Your task to perform on an android device: check the backup settings in the google photos Image 0: 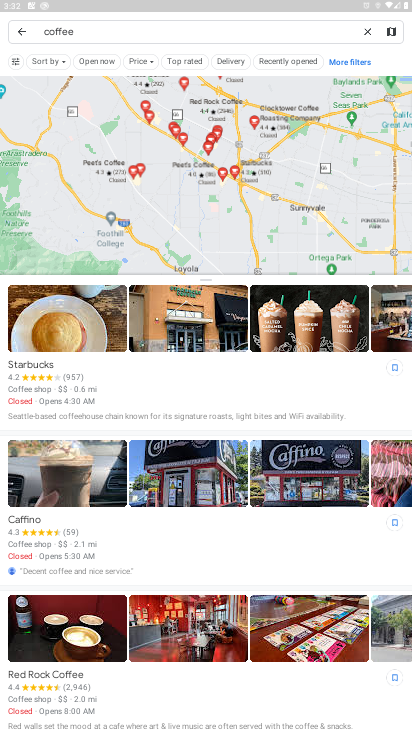
Step 0: press home button
Your task to perform on an android device: check the backup settings in the google photos Image 1: 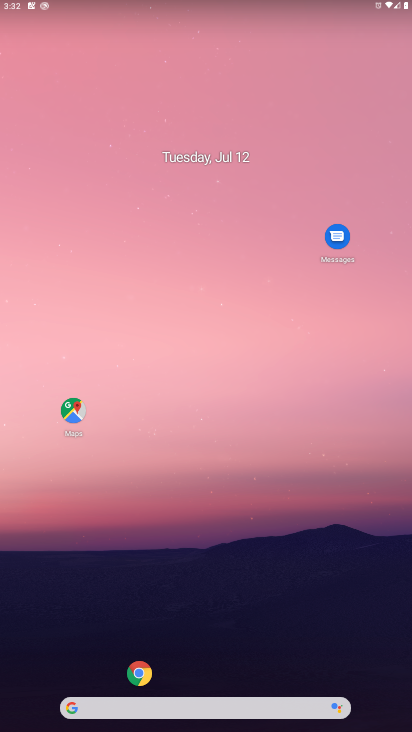
Step 1: drag from (171, 257) to (215, 147)
Your task to perform on an android device: check the backup settings in the google photos Image 2: 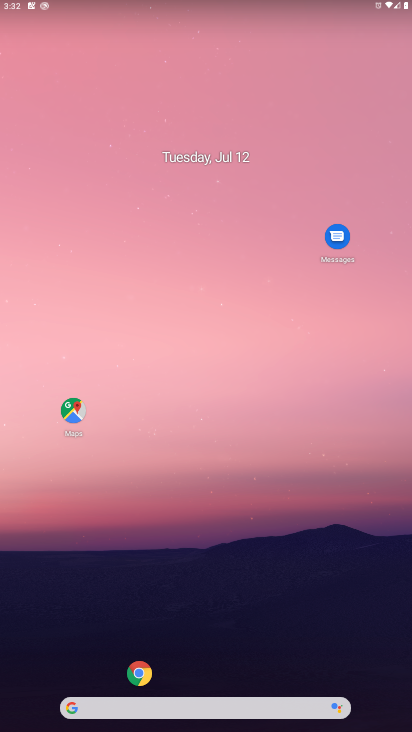
Step 2: drag from (26, 715) to (204, 39)
Your task to perform on an android device: check the backup settings in the google photos Image 3: 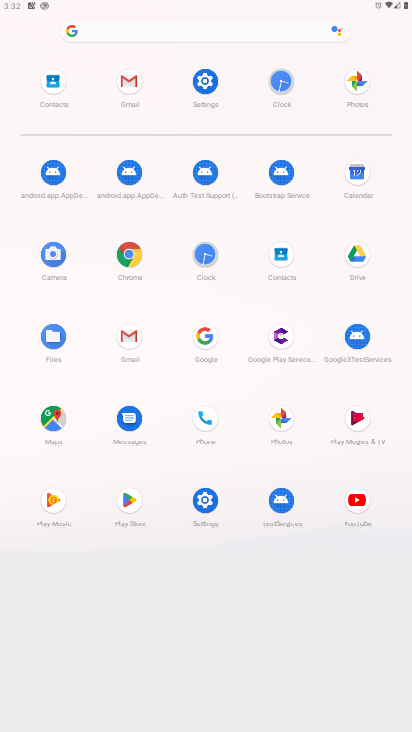
Step 3: click (285, 418)
Your task to perform on an android device: check the backup settings in the google photos Image 4: 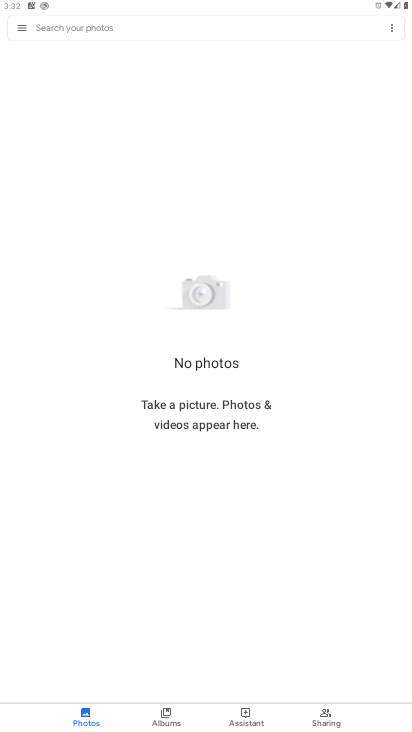
Step 4: click (20, 22)
Your task to perform on an android device: check the backup settings in the google photos Image 5: 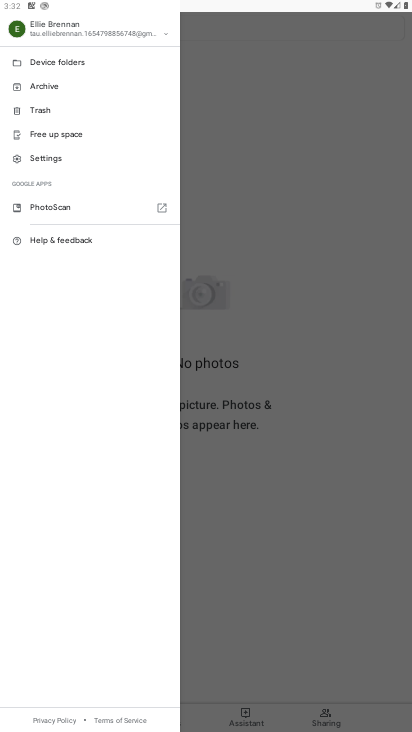
Step 5: click (49, 156)
Your task to perform on an android device: check the backup settings in the google photos Image 6: 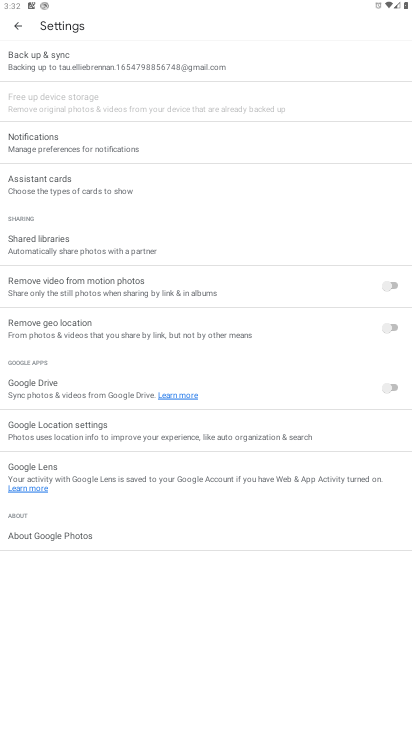
Step 6: click (61, 57)
Your task to perform on an android device: check the backup settings in the google photos Image 7: 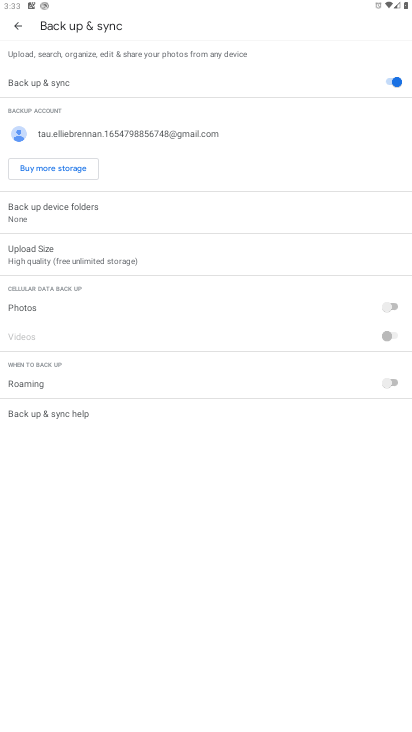
Step 7: task complete